Your task to perform on an android device: Open Youtube and go to "Your channel" Image 0: 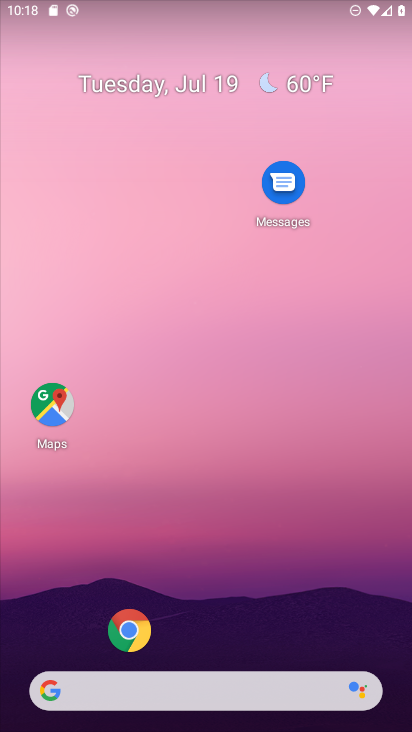
Step 0: drag from (13, 708) to (342, 0)
Your task to perform on an android device: Open Youtube and go to "Your channel" Image 1: 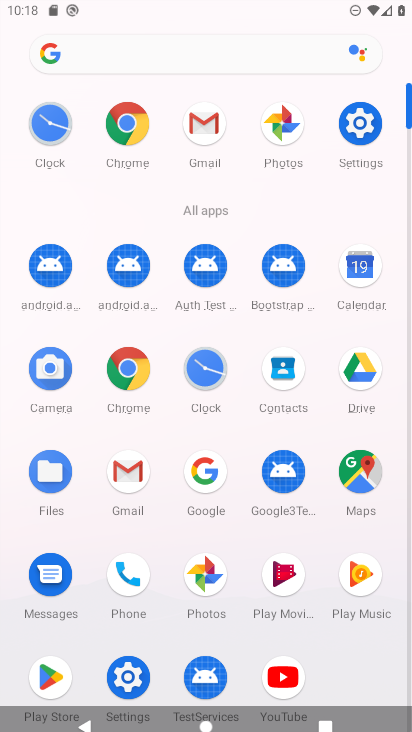
Step 1: click (272, 678)
Your task to perform on an android device: Open Youtube and go to "Your channel" Image 2: 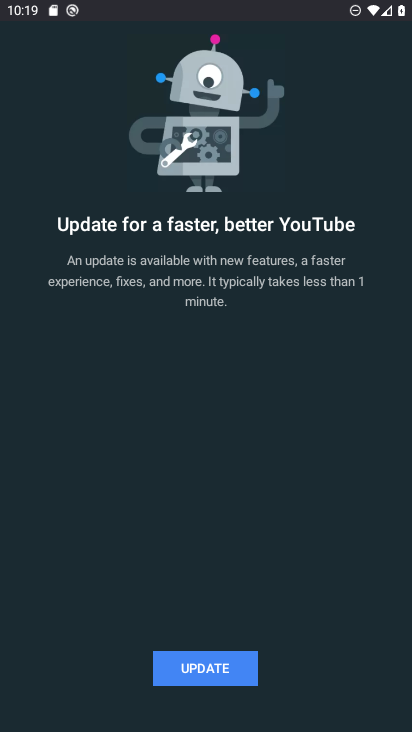
Step 2: click (175, 667)
Your task to perform on an android device: Open Youtube and go to "Your channel" Image 3: 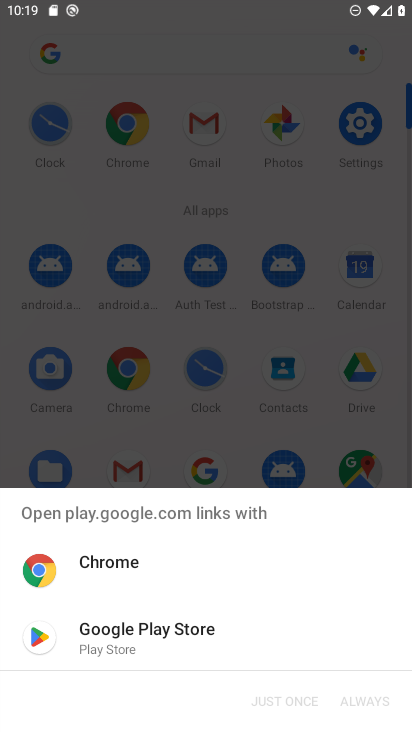
Step 3: click (135, 631)
Your task to perform on an android device: Open Youtube and go to "Your channel" Image 4: 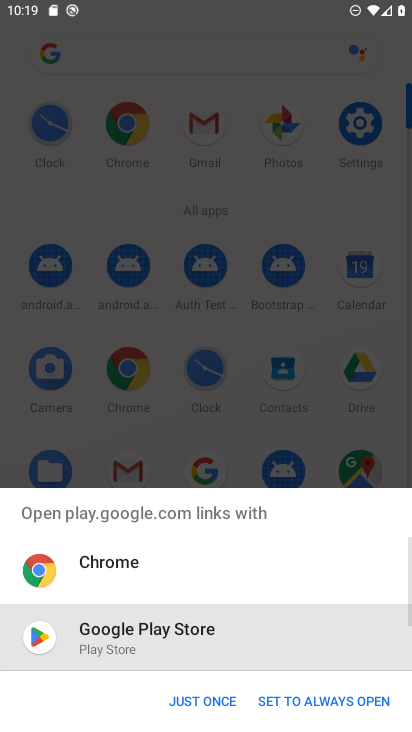
Step 4: click (192, 710)
Your task to perform on an android device: Open Youtube and go to "Your channel" Image 5: 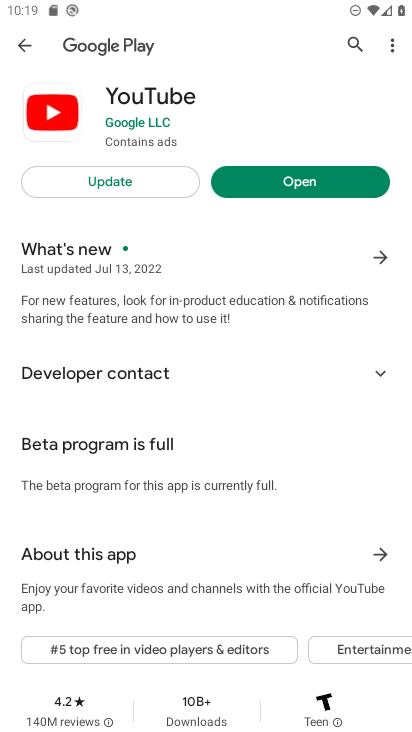
Step 5: click (310, 185)
Your task to perform on an android device: Open Youtube and go to "Your channel" Image 6: 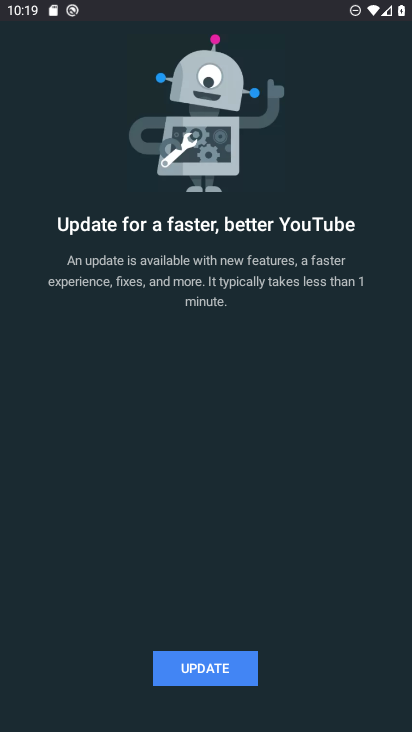
Step 6: task complete